Your task to perform on an android device: Open the web browser Image 0: 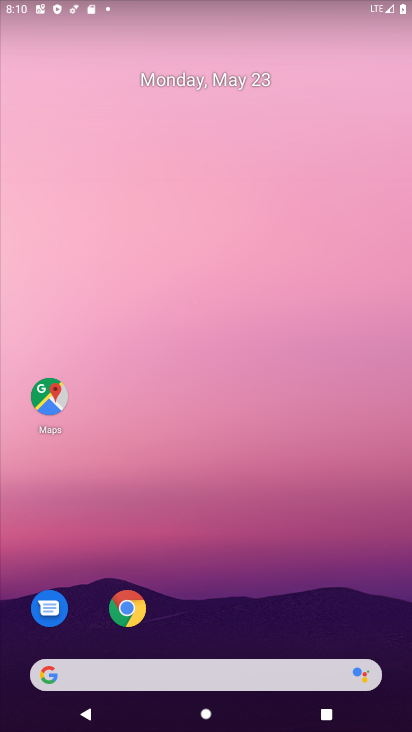
Step 0: click (134, 625)
Your task to perform on an android device: Open the web browser Image 1: 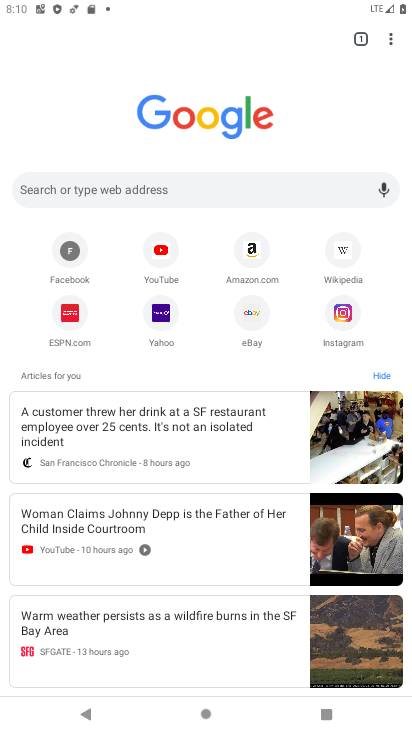
Step 1: task complete